Your task to perform on an android device: Go to notification settings Image 0: 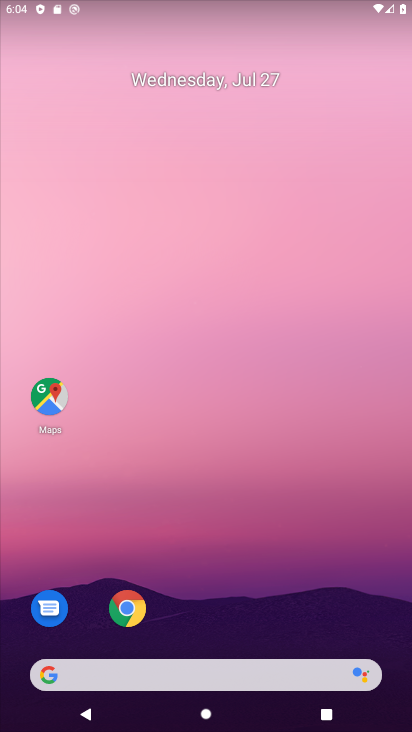
Step 0: press home button
Your task to perform on an android device: Go to notification settings Image 1: 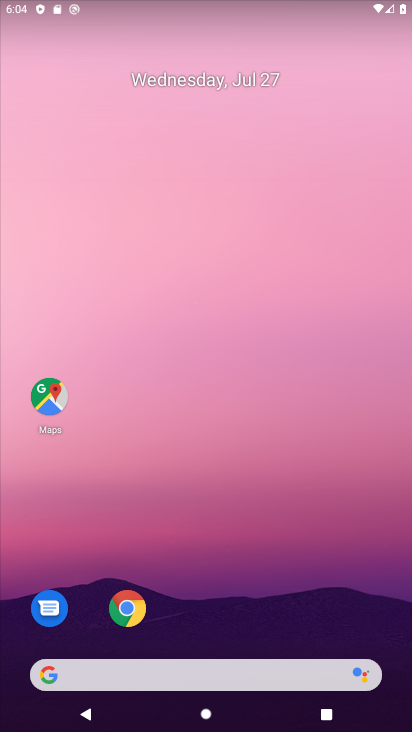
Step 1: drag from (236, 626) to (252, 378)
Your task to perform on an android device: Go to notification settings Image 2: 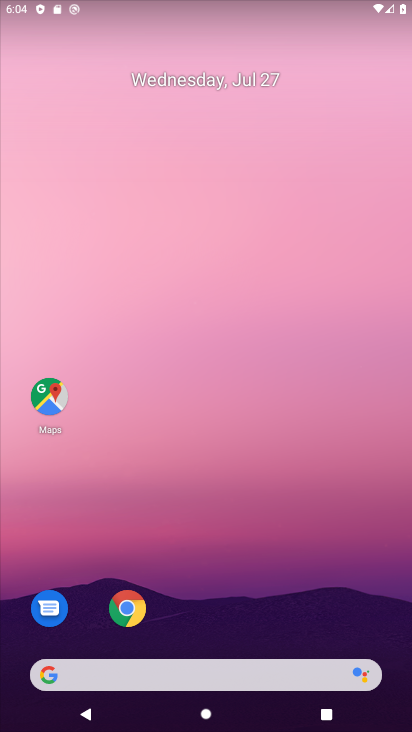
Step 2: drag from (221, 614) to (222, 158)
Your task to perform on an android device: Go to notification settings Image 3: 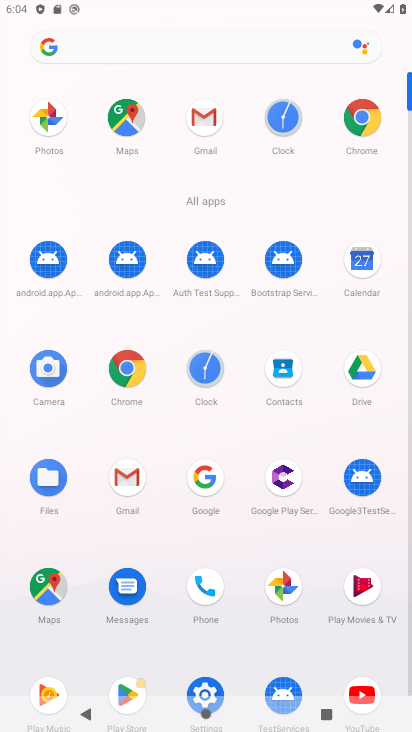
Step 3: click (202, 687)
Your task to perform on an android device: Go to notification settings Image 4: 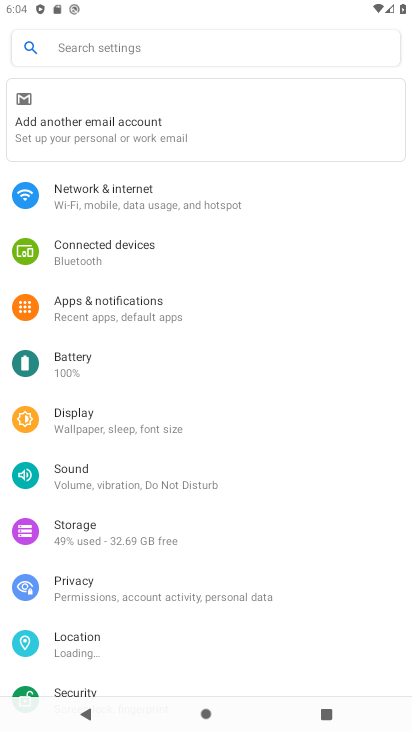
Step 4: click (101, 308)
Your task to perform on an android device: Go to notification settings Image 5: 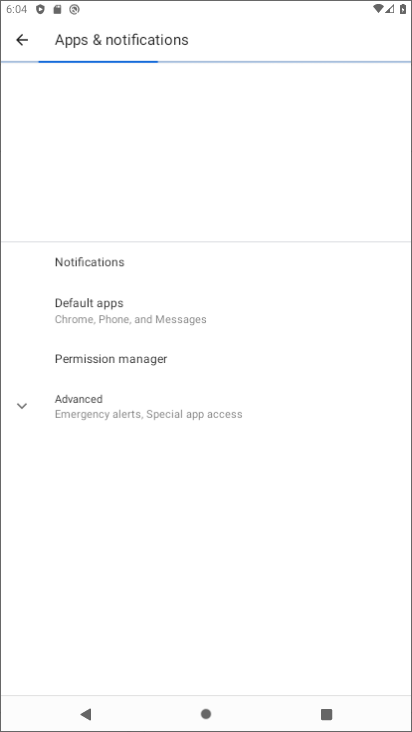
Step 5: click (101, 308)
Your task to perform on an android device: Go to notification settings Image 6: 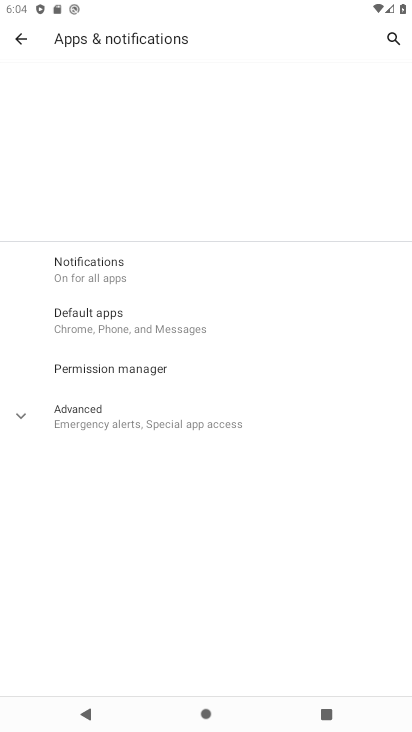
Step 6: click (82, 276)
Your task to perform on an android device: Go to notification settings Image 7: 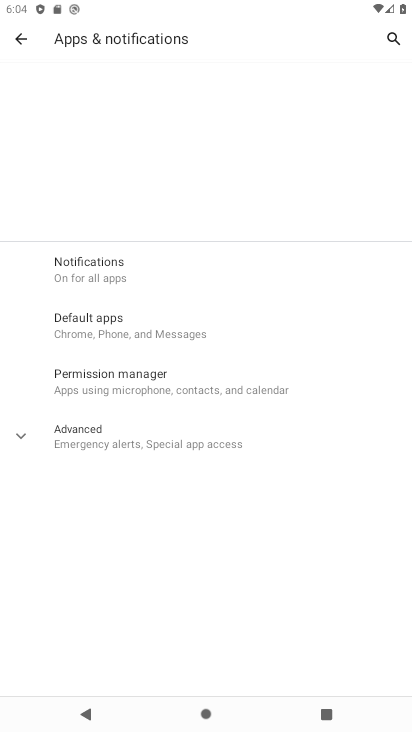
Step 7: click (82, 276)
Your task to perform on an android device: Go to notification settings Image 8: 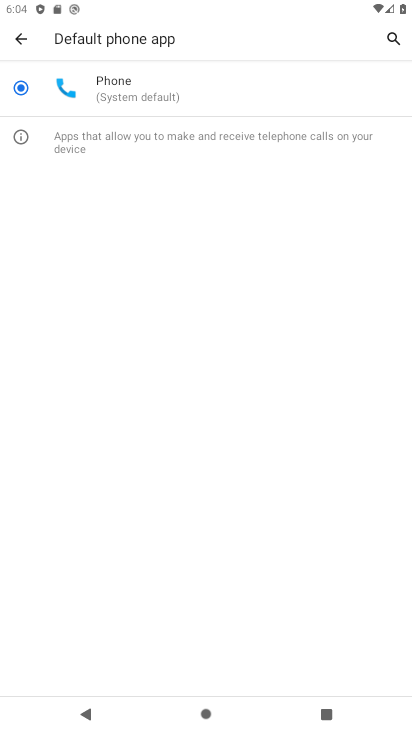
Step 8: press home button
Your task to perform on an android device: Go to notification settings Image 9: 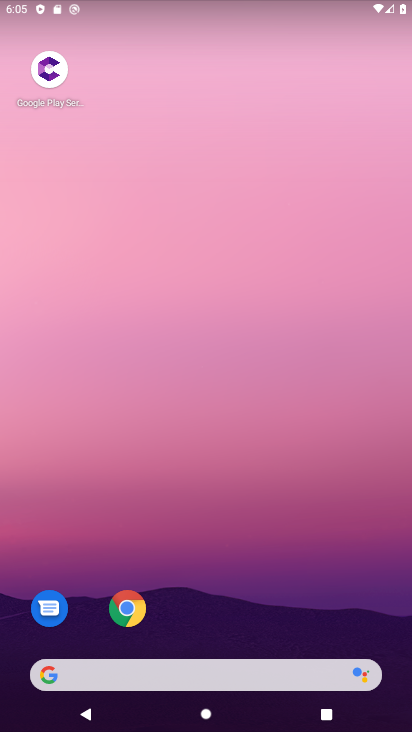
Step 9: drag from (201, 622) to (245, 0)
Your task to perform on an android device: Go to notification settings Image 10: 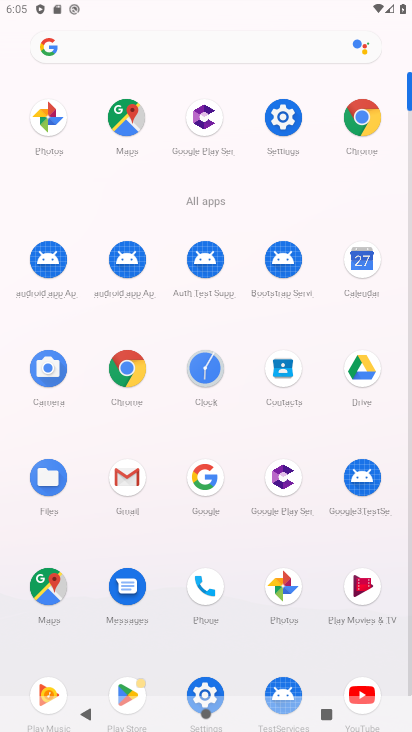
Step 10: click (281, 120)
Your task to perform on an android device: Go to notification settings Image 11: 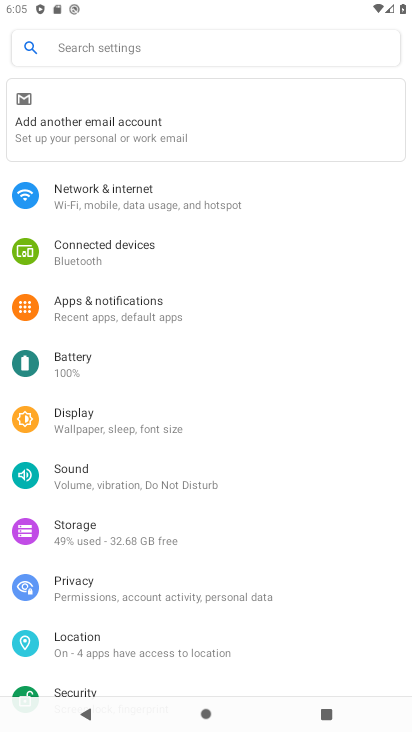
Step 11: click (101, 304)
Your task to perform on an android device: Go to notification settings Image 12: 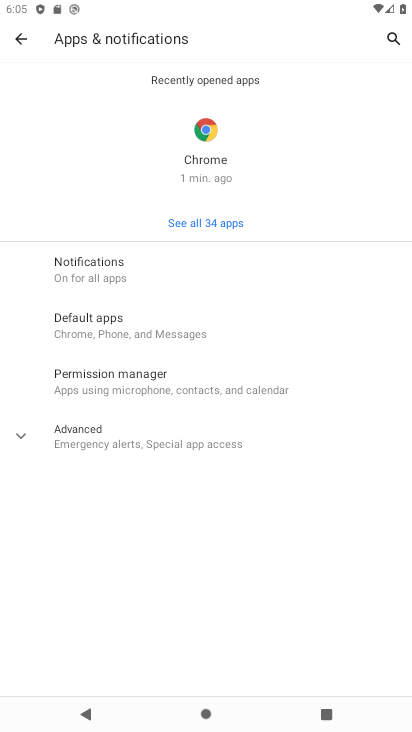
Step 12: click (87, 270)
Your task to perform on an android device: Go to notification settings Image 13: 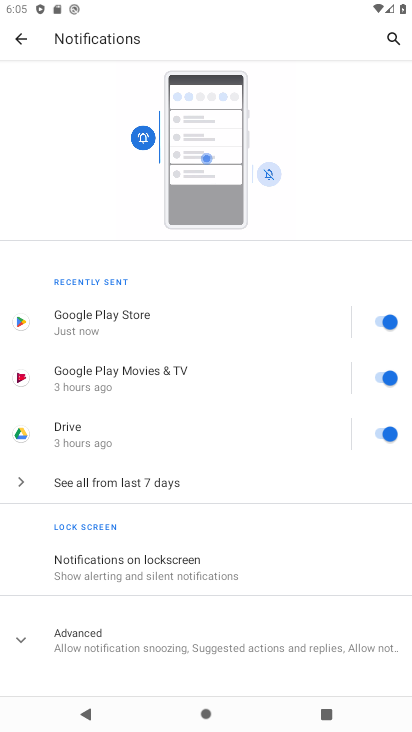
Step 13: click (117, 567)
Your task to perform on an android device: Go to notification settings Image 14: 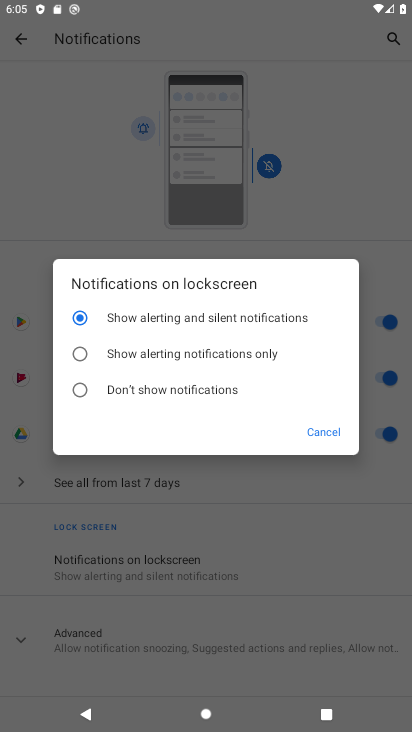
Step 14: click (324, 436)
Your task to perform on an android device: Go to notification settings Image 15: 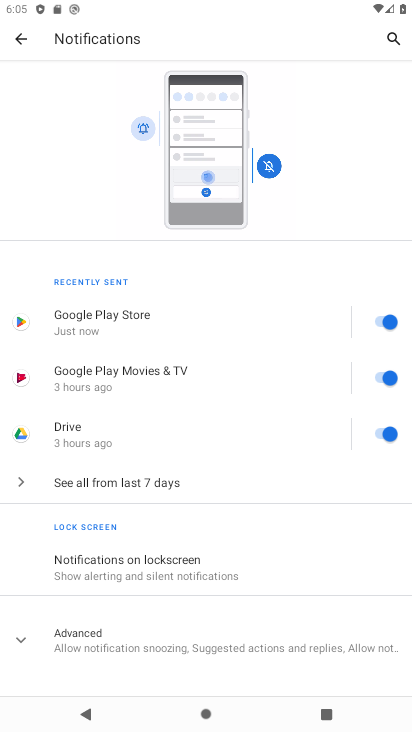
Step 15: task complete